Your task to perform on an android device: move a message to another label in the gmail app Image 0: 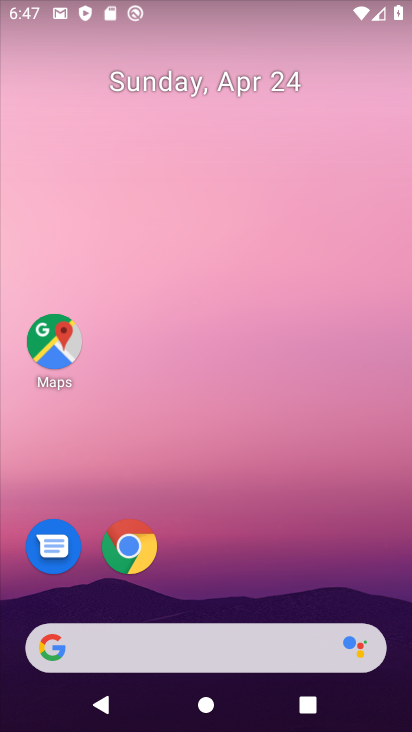
Step 0: drag from (248, 583) to (321, 6)
Your task to perform on an android device: move a message to another label in the gmail app Image 1: 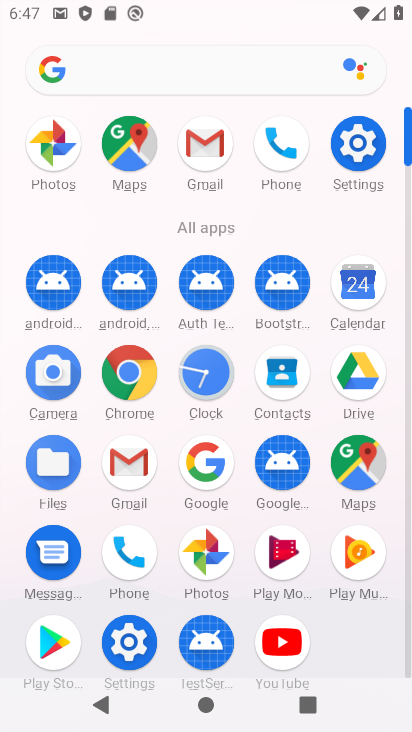
Step 1: click (200, 142)
Your task to perform on an android device: move a message to another label in the gmail app Image 2: 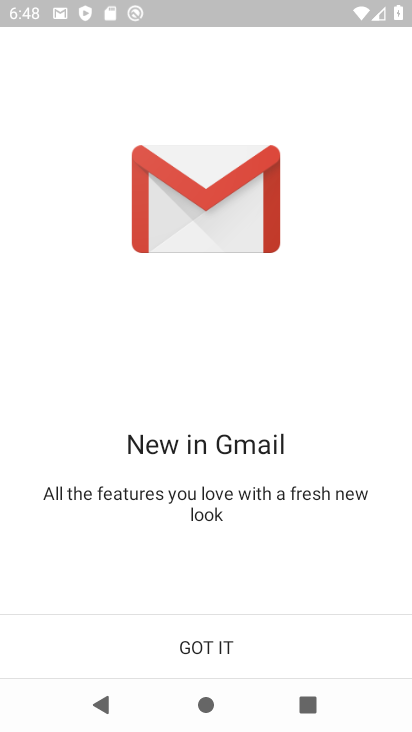
Step 2: click (206, 646)
Your task to perform on an android device: move a message to another label in the gmail app Image 3: 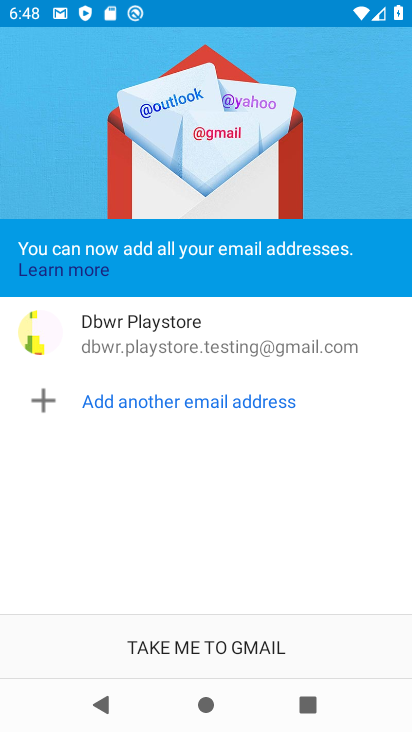
Step 3: click (206, 646)
Your task to perform on an android device: move a message to another label in the gmail app Image 4: 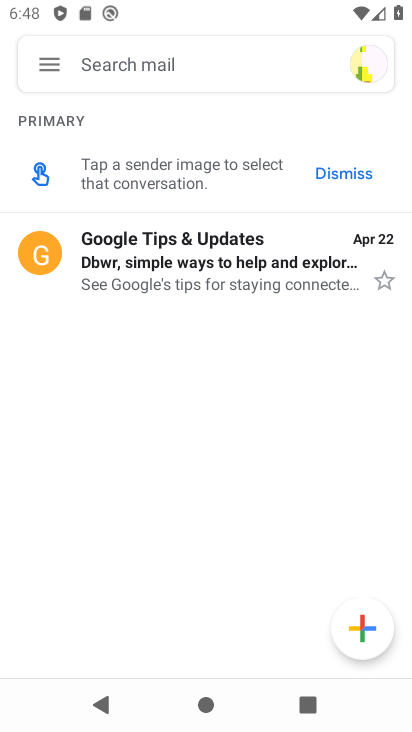
Step 4: click (127, 251)
Your task to perform on an android device: move a message to another label in the gmail app Image 5: 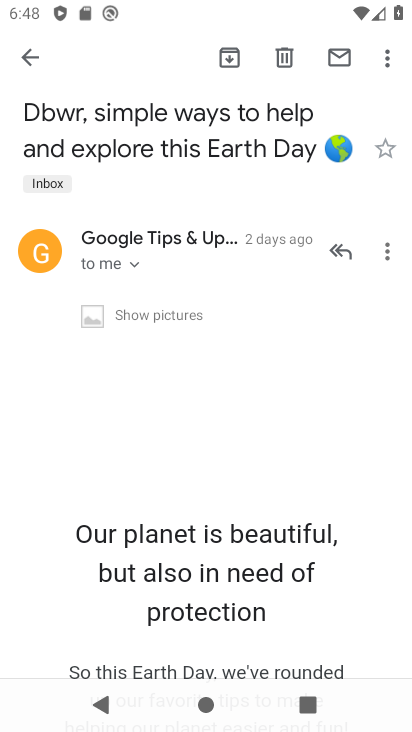
Step 5: click (388, 59)
Your task to perform on an android device: move a message to another label in the gmail app Image 6: 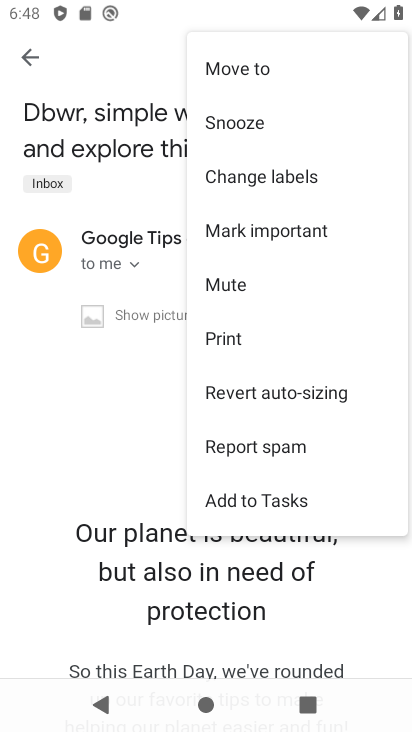
Step 6: click (281, 176)
Your task to perform on an android device: move a message to another label in the gmail app Image 7: 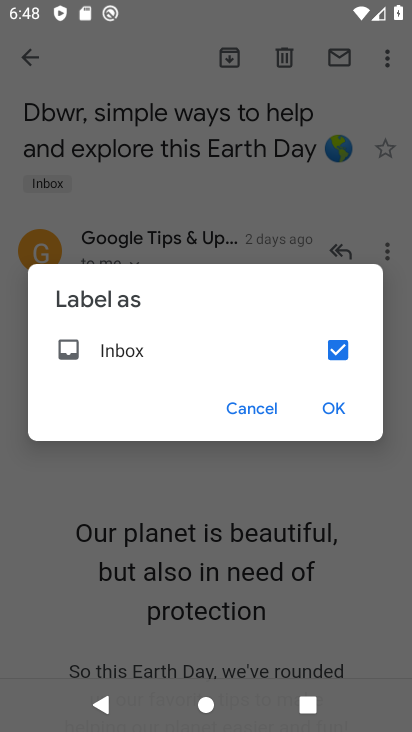
Step 7: click (333, 408)
Your task to perform on an android device: move a message to another label in the gmail app Image 8: 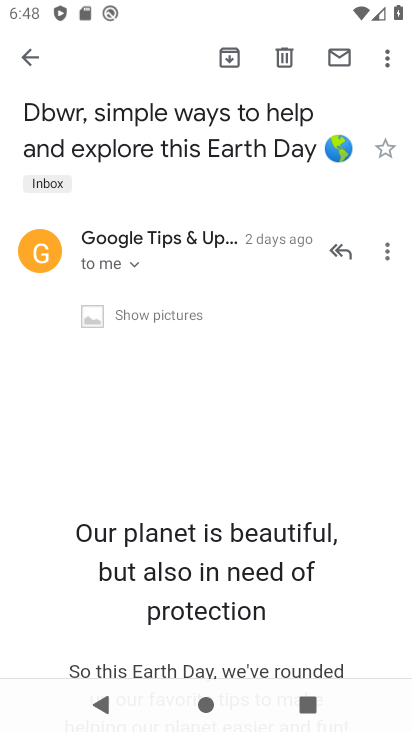
Step 8: task complete